Your task to perform on an android device: add a label to a message in the gmail app Image 0: 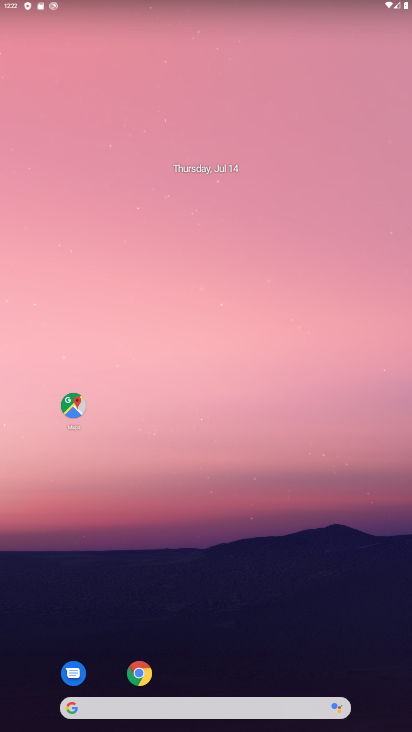
Step 0: drag from (278, 659) to (248, 45)
Your task to perform on an android device: add a label to a message in the gmail app Image 1: 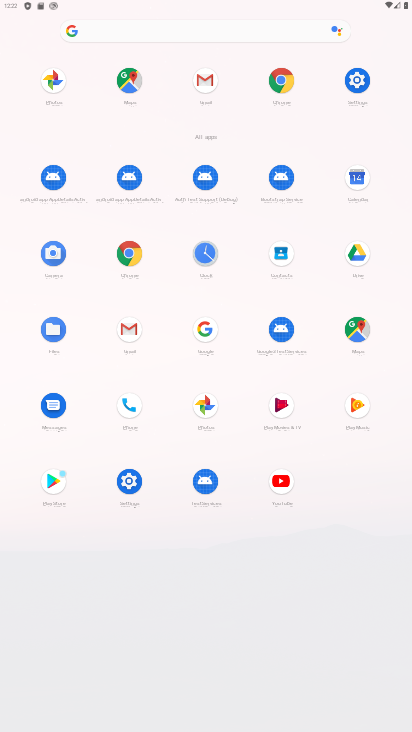
Step 1: click (211, 96)
Your task to perform on an android device: add a label to a message in the gmail app Image 2: 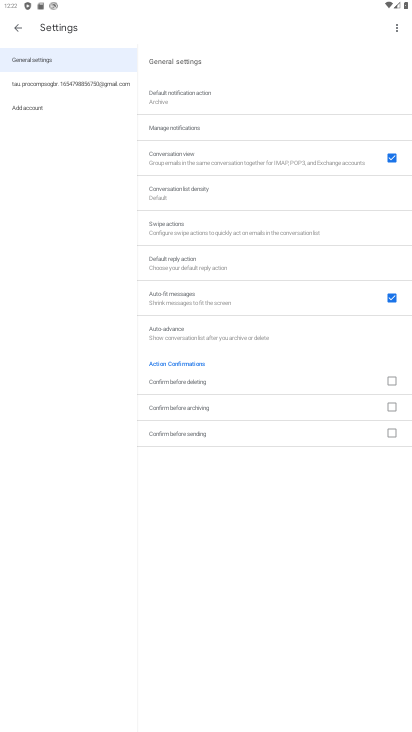
Step 2: press home button
Your task to perform on an android device: add a label to a message in the gmail app Image 3: 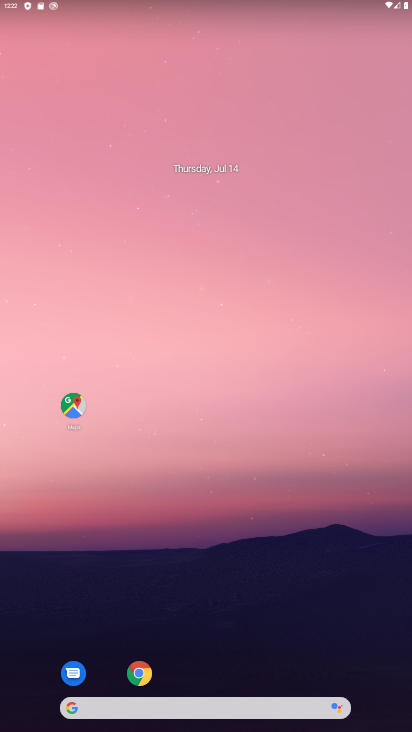
Step 3: drag from (292, 657) to (263, 321)
Your task to perform on an android device: add a label to a message in the gmail app Image 4: 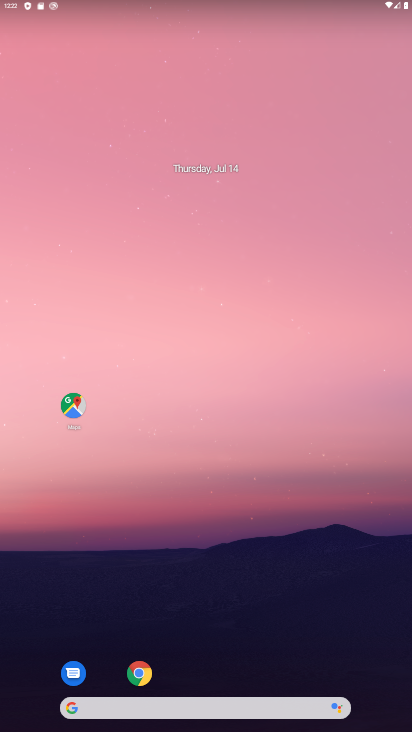
Step 4: drag from (262, 660) to (248, 168)
Your task to perform on an android device: add a label to a message in the gmail app Image 5: 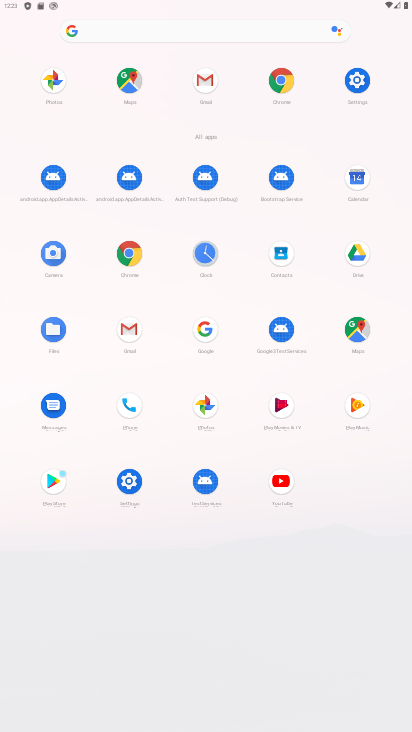
Step 5: click (201, 86)
Your task to perform on an android device: add a label to a message in the gmail app Image 6: 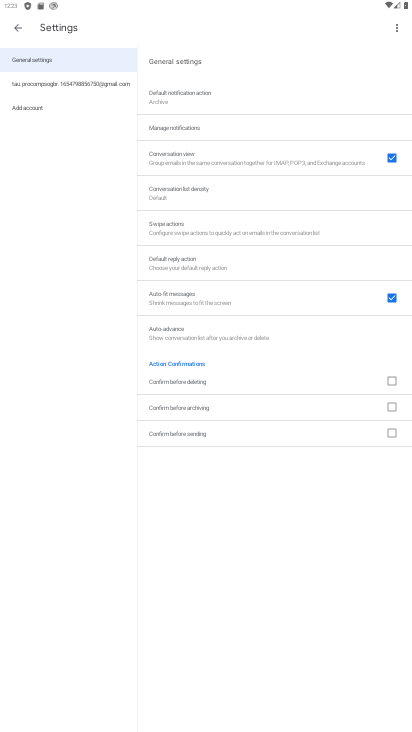
Step 6: task complete